Your task to perform on an android device: Show me popular videos on Youtube Image 0: 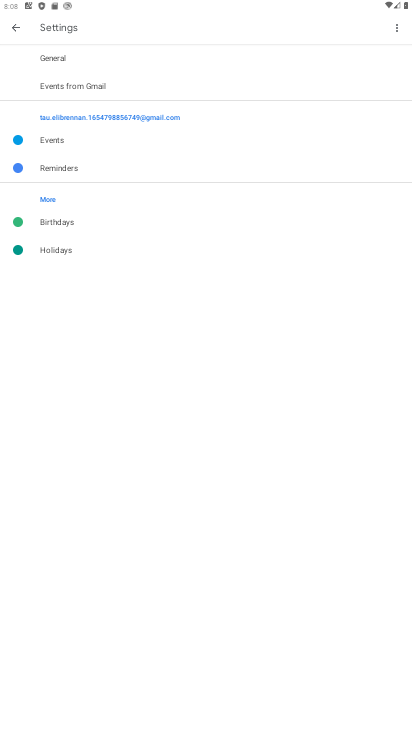
Step 0: press home button
Your task to perform on an android device: Show me popular videos on Youtube Image 1: 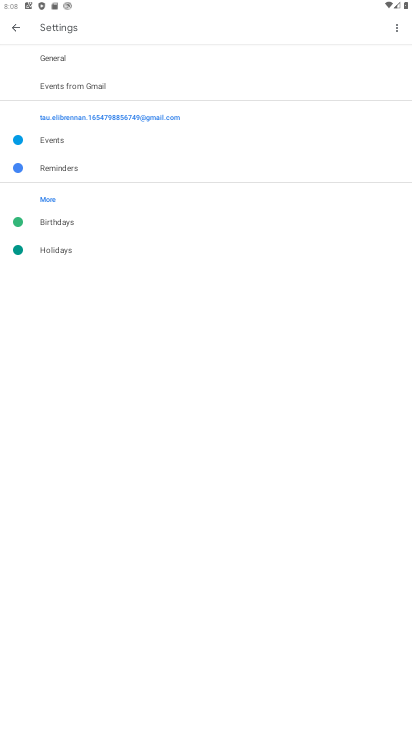
Step 1: press home button
Your task to perform on an android device: Show me popular videos on Youtube Image 2: 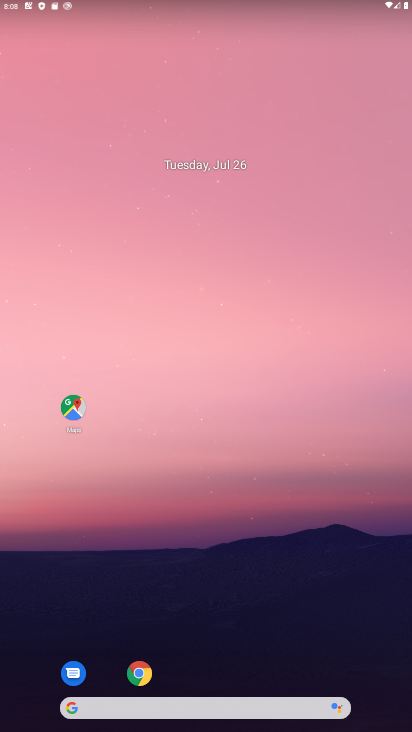
Step 2: drag from (196, 633) to (210, 240)
Your task to perform on an android device: Show me popular videos on Youtube Image 3: 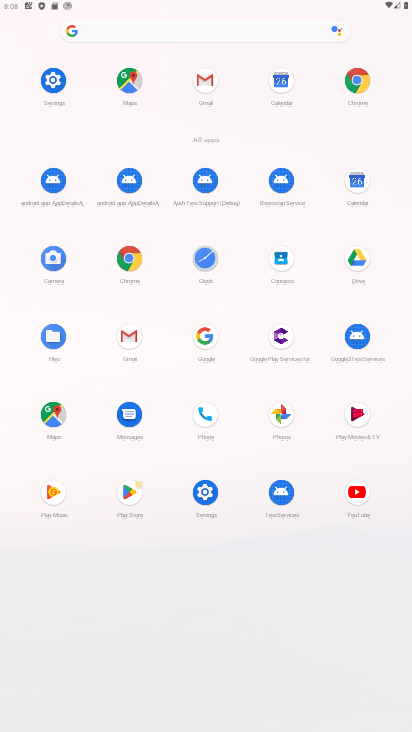
Step 3: click (372, 496)
Your task to perform on an android device: Show me popular videos on Youtube Image 4: 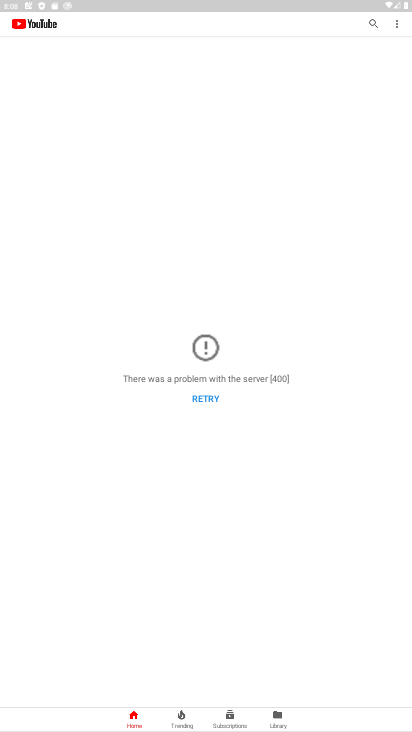
Step 4: task complete